Your task to perform on an android device: check out phone information Image 0: 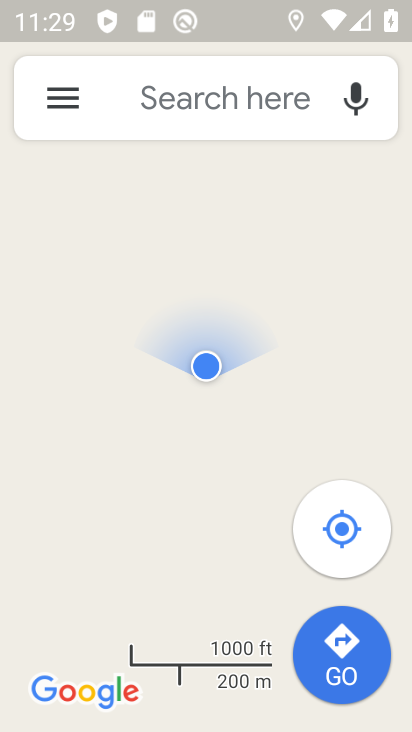
Step 0: press home button
Your task to perform on an android device: check out phone information Image 1: 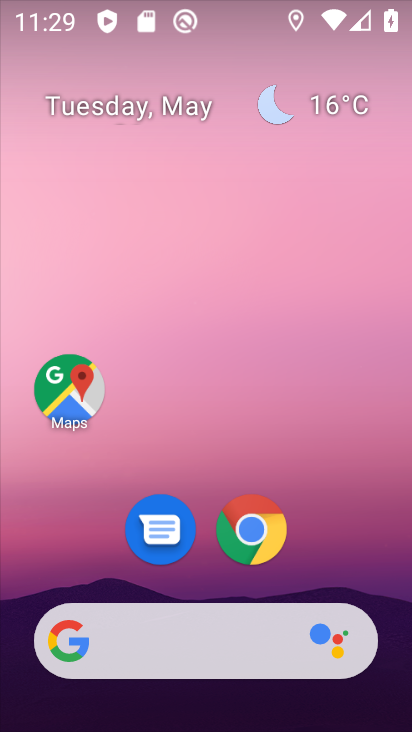
Step 1: drag from (66, 593) to (191, 52)
Your task to perform on an android device: check out phone information Image 2: 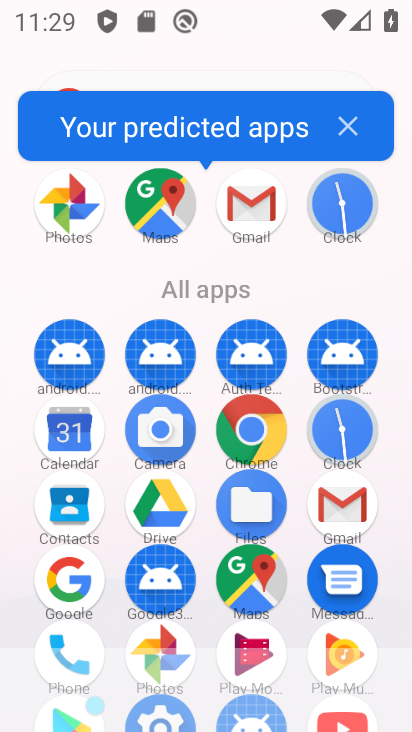
Step 2: drag from (172, 592) to (241, 249)
Your task to perform on an android device: check out phone information Image 3: 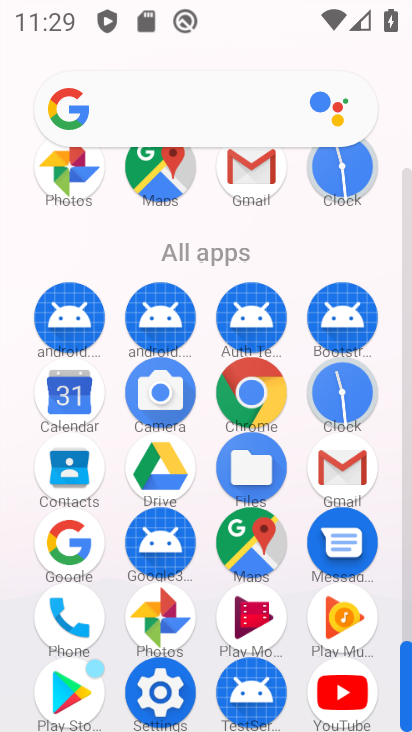
Step 3: click (162, 694)
Your task to perform on an android device: check out phone information Image 4: 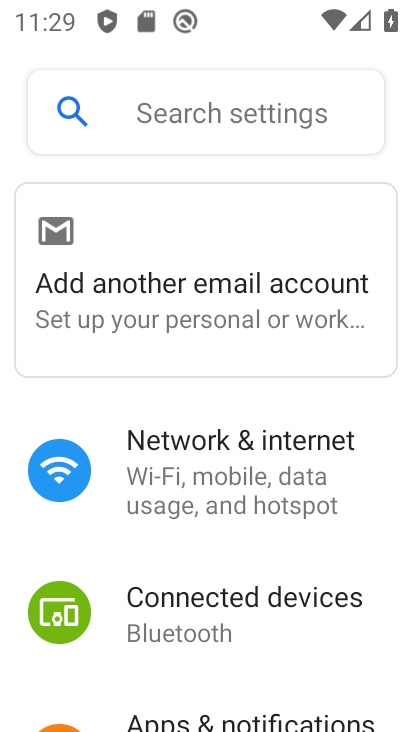
Step 4: drag from (184, 666) to (293, 173)
Your task to perform on an android device: check out phone information Image 5: 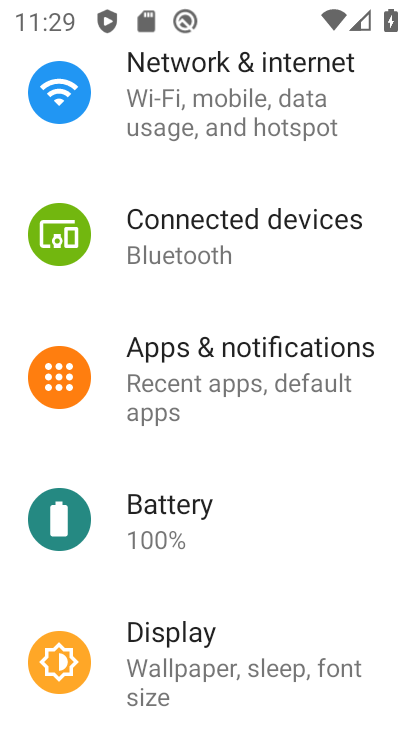
Step 5: drag from (235, 621) to (313, 175)
Your task to perform on an android device: check out phone information Image 6: 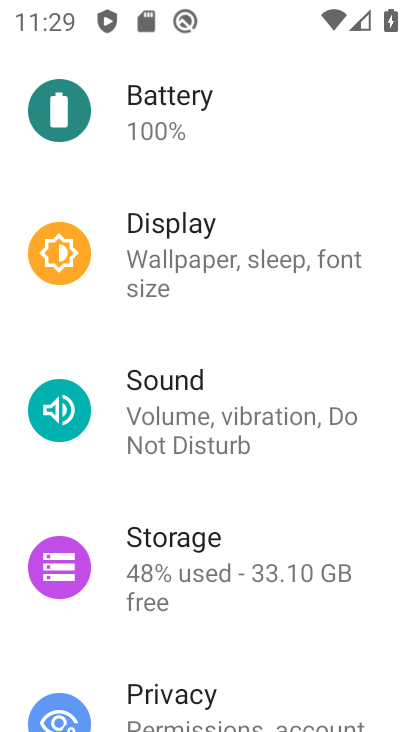
Step 6: drag from (201, 649) to (333, 122)
Your task to perform on an android device: check out phone information Image 7: 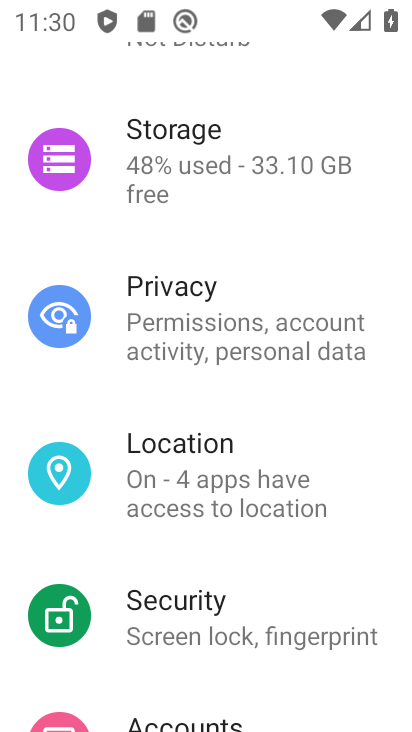
Step 7: drag from (303, 730) to (311, 261)
Your task to perform on an android device: check out phone information Image 8: 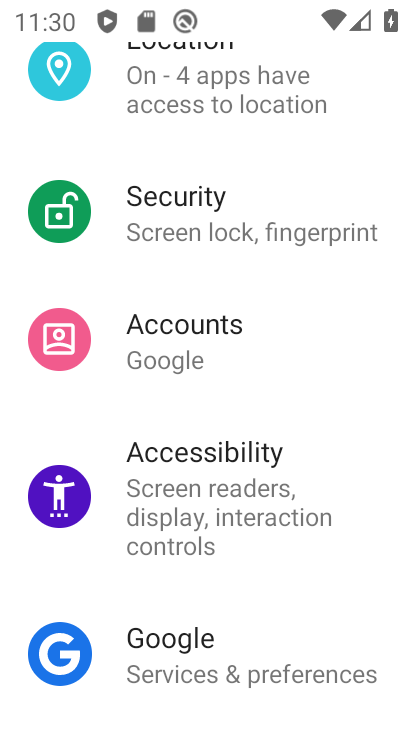
Step 8: drag from (183, 668) to (291, 148)
Your task to perform on an android device: check out phone information Image 9: 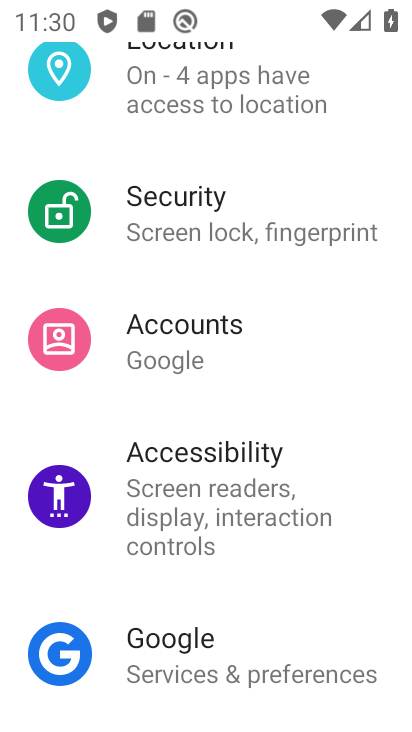
Step 9: drag from (244, 579) to (345, 78)
Your task to perform on an android device: check out phone information Image 10: 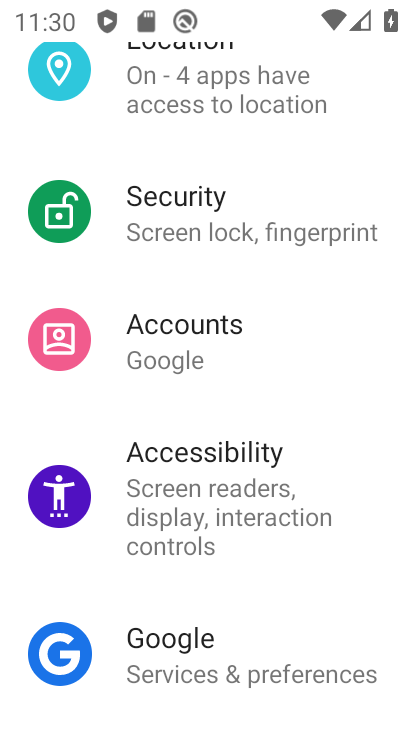
Step 10: drag from (212, 630) to (358, 32)
Your task to perform on an android device: check out phone information Image 11: 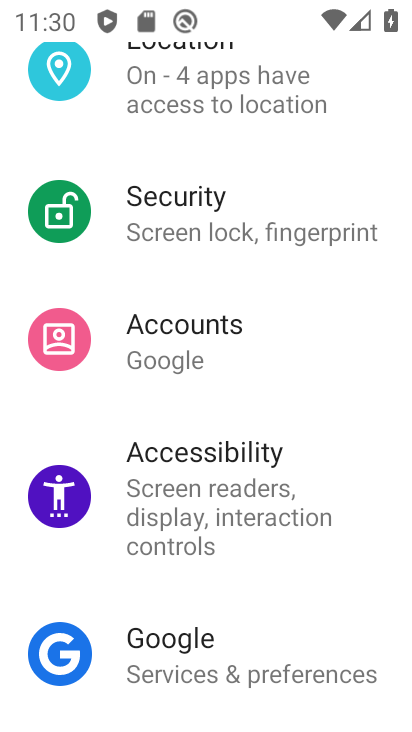
Step 11: drag from (272, 672) to (360, 105)
Your task to perform on an android device: check out phone information Image 12: 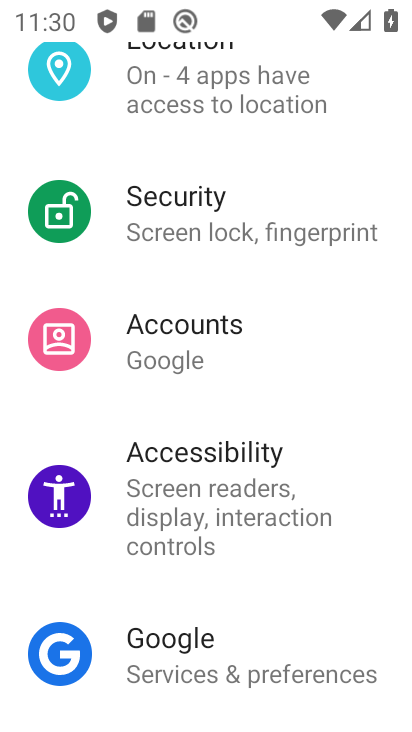
Step 12: drag from (135, 615) to (234, 136)
Your task to perform on an android device: check out phone information Image 13: 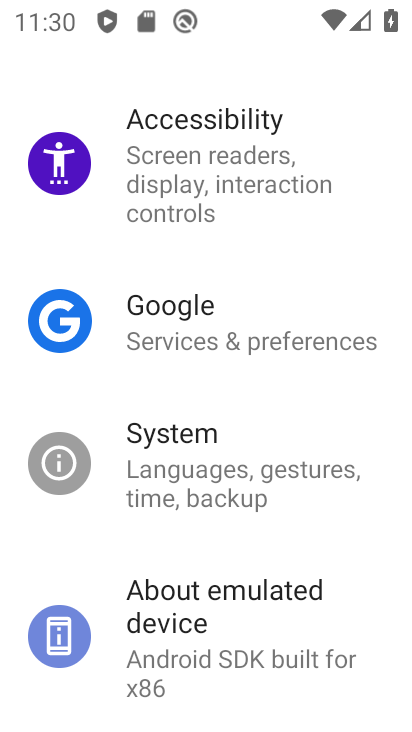
Step 13: drag from (178, 671) to (267, 183)
Your task to perform on an android device: check out phone information Image 14: 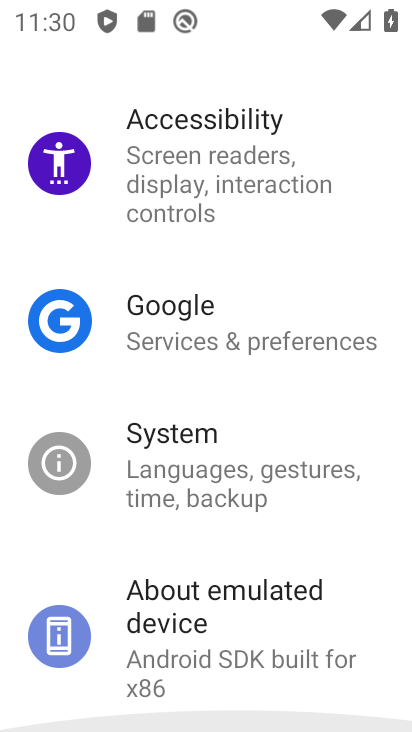
Step 14: click (236, 630)
Your task to perform on an android device: check out phone information Image 15: 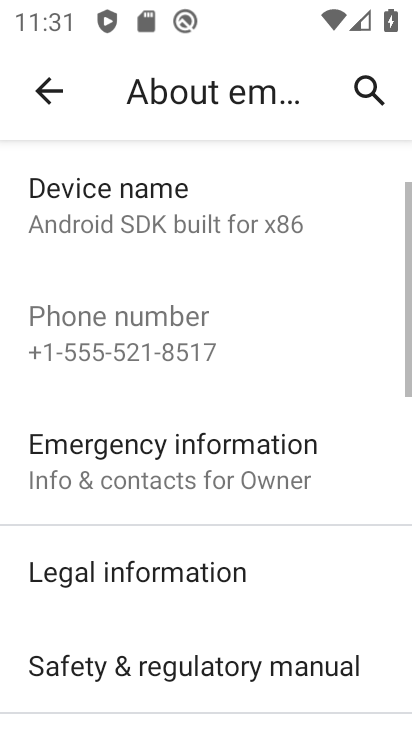
Step 15: task complete